Your task to perform on an android device: Go to eBay Image 0: 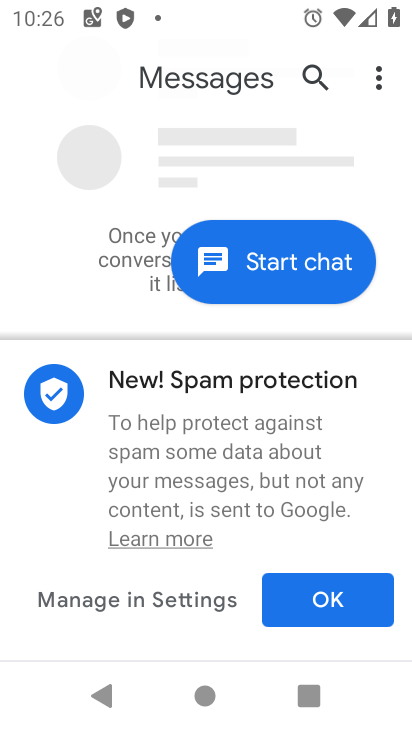
Step 0: press home button
Your task to perform on an android device: Go to eBay Image 1: 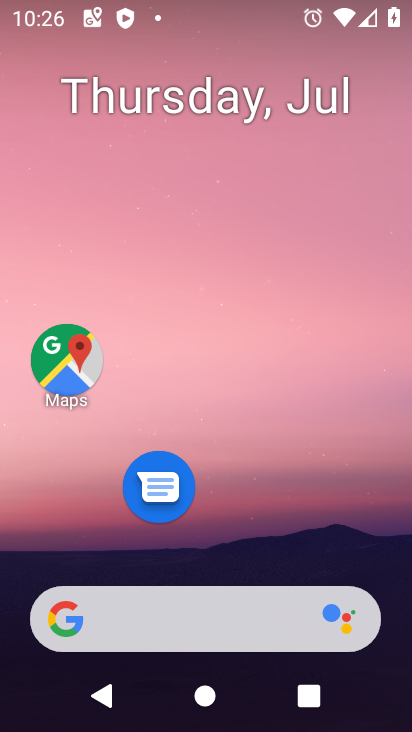
Step 1: drag from (238, 651) to (217, 264)
Your task to perform on an android device: Go to eBay Image 2: 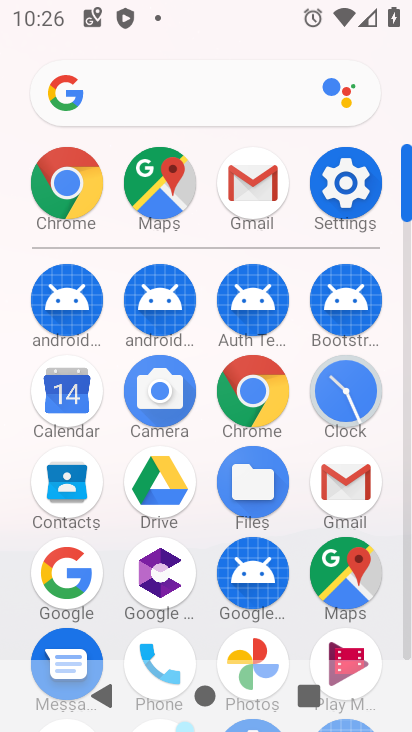
Step 2: click (252, 406)
Your task to perform on an android device: Go to eBay Image 3: 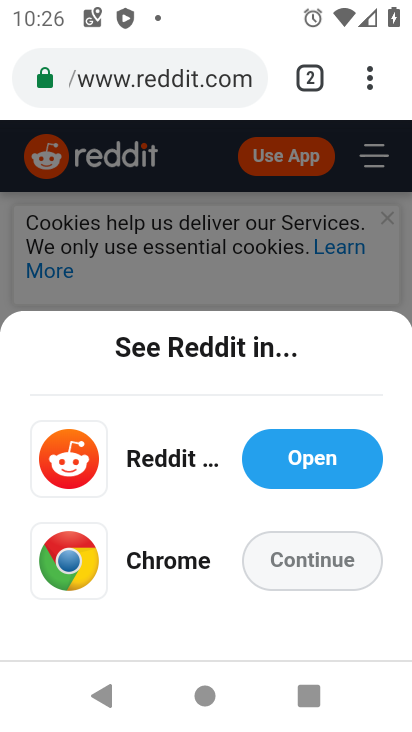
Step 3: click (195, 76)
Your task to perform on an android device: Go to eBay Image 4: 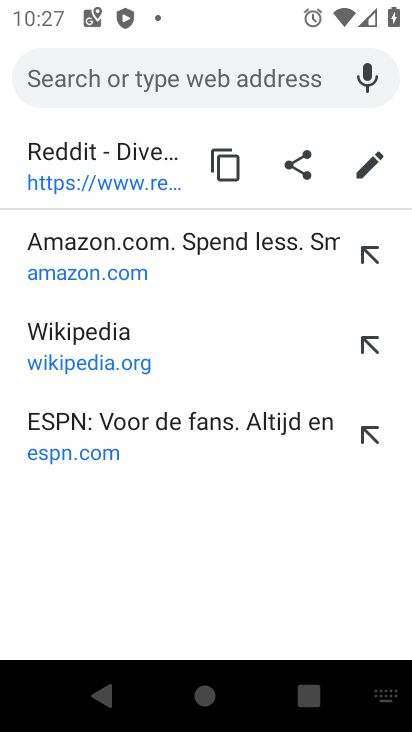
Step 4: type "ebay"
Your task to perform on an android device: Go to eBay Image 5: 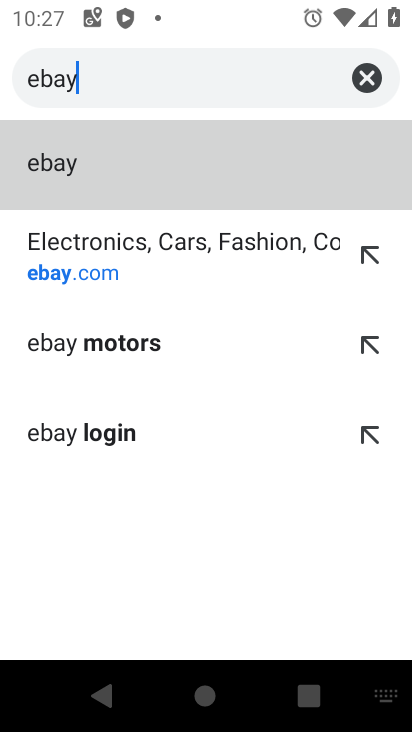
Step 5: click (127, 277)
Your task to perform on an android device: Go to eBay Image 6: 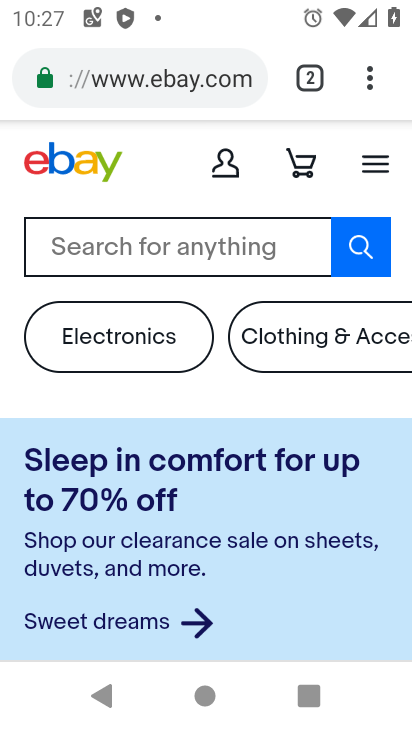
Step 6: task complete